Your task to perform on an android device: Open Yahoo.com Image 0: 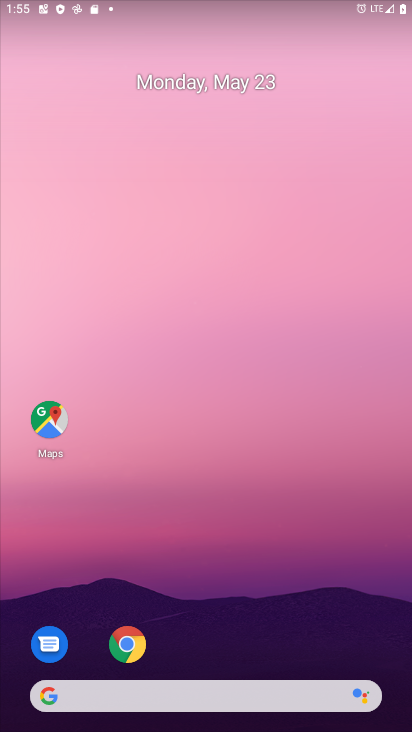
Step 0: drag from (322, 657) to (179, 82)
Your task to perform on an android device: Open Yahoo.com Image 1: 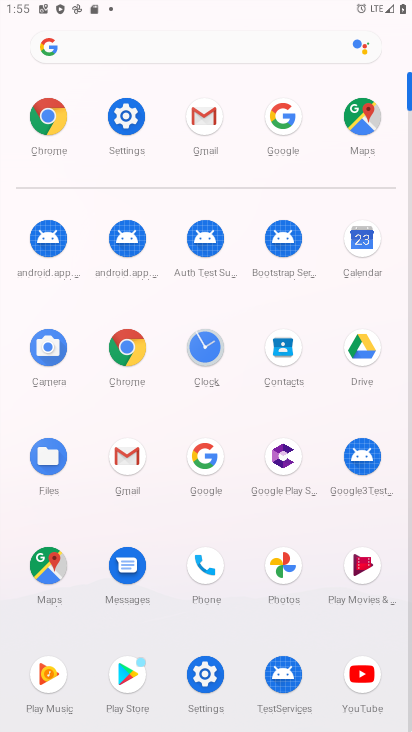
Step 1: click (131, 348)
Your task to perform on an android device: Open Yahoo.com Image 2: 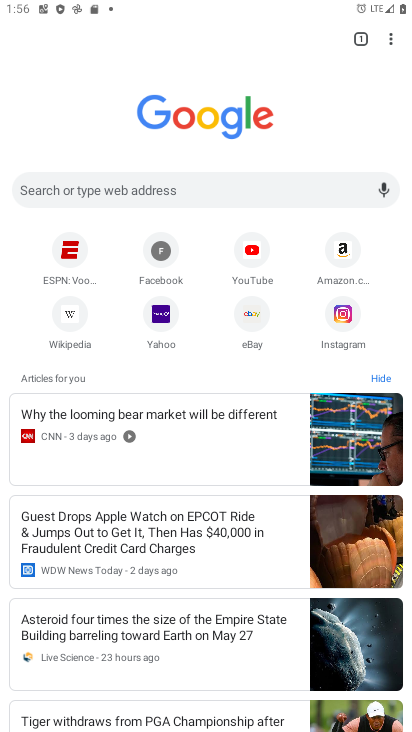
Step 2: click (165, 309)
Your task to perform on an android device: Open Yahoo.com Image 3: 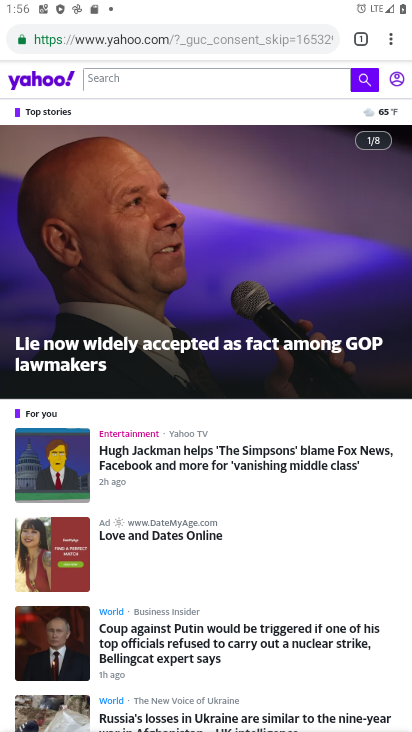
Step 3: task complete